Your task to perform on an android device: open a bookmark in the chrome app Image 0: 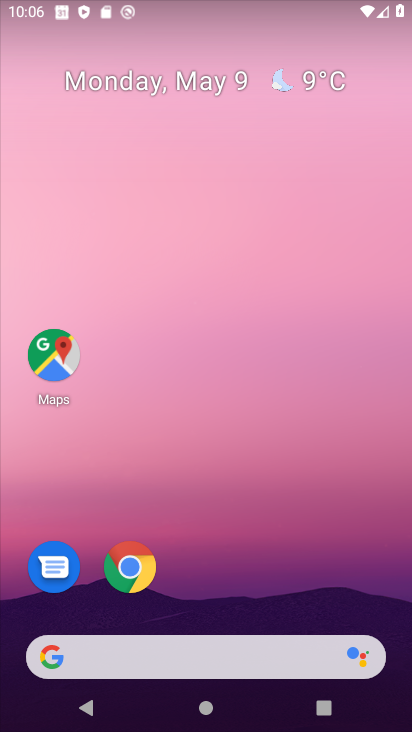
Step 0: press home button
Your task to perform on an android device: open a bookmark in the chrome app Image 1: 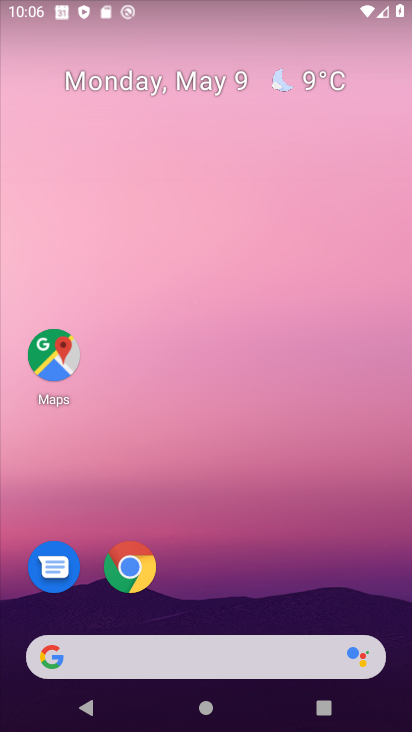
Step 1: press home button
Your task to perform on an android device: open a bookmark in the chrome app Image 2: 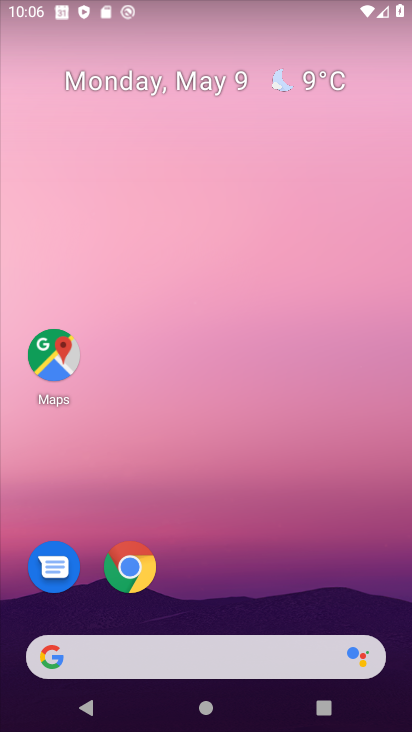
Step 2: click (127, 562)
Your task to perform on an android device: open a bookmark in the chrome app Image 3: 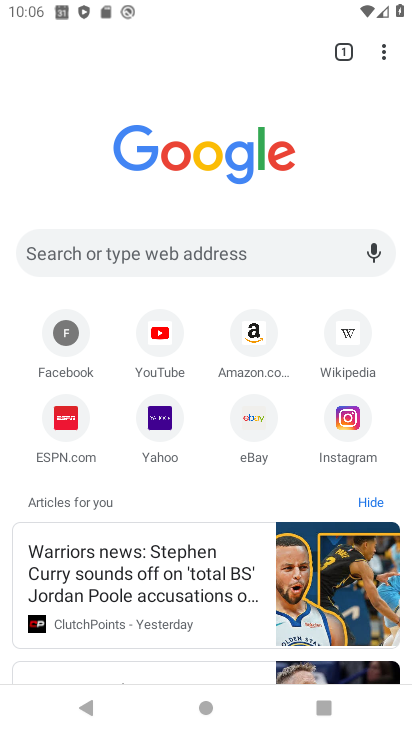
Step 3: click (382, 46)
Your task to perform on an android device: open a bookmark in the chrome app Image 4: 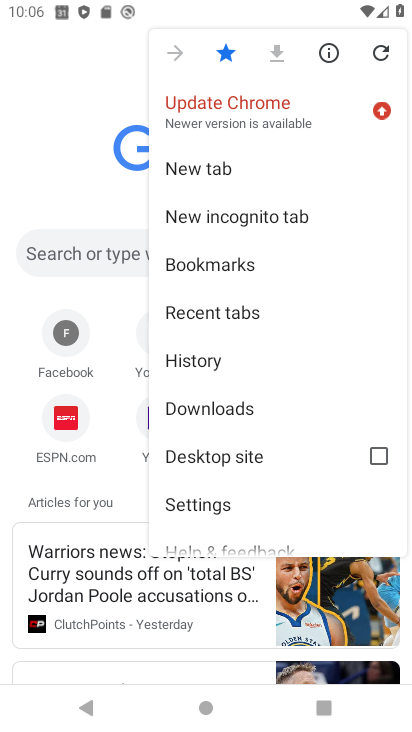
Step 4: click (263, 262)
Your task to perform on an android device: open a bookmark in the chrome app Image 5: 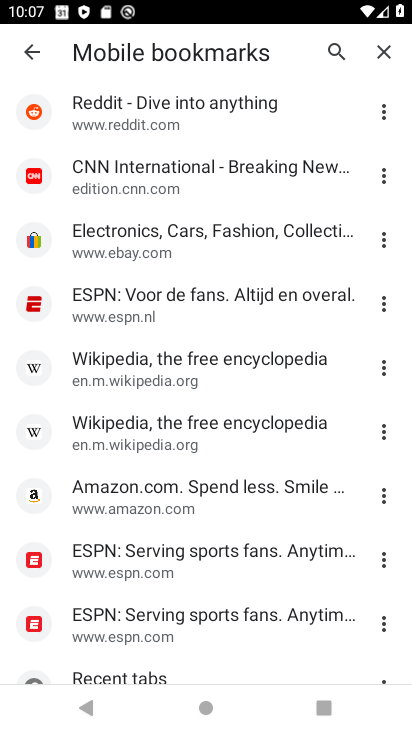
Step 5: click (114, 164)
Your task to perform on an android device: open a bookmark in the chrome app Image 6: 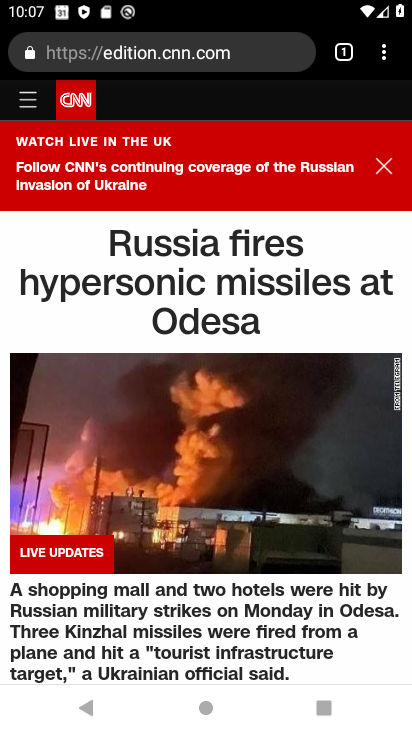
Step 6: task complete